Your task to perform on an android device: Open accessibility settings Image 0: 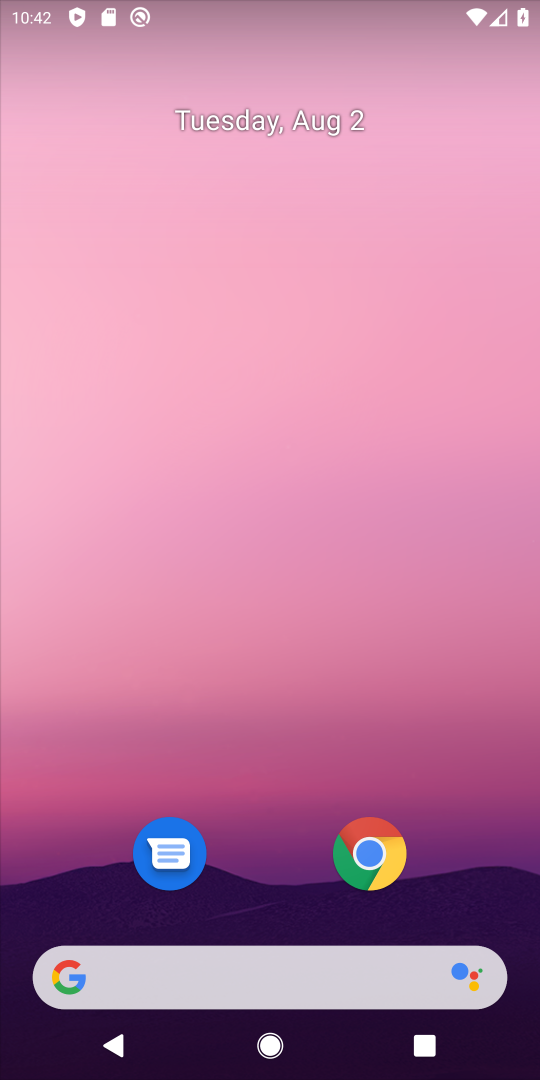
Step 0: drag from (348, 774) to (325, 208)
Your task to perform on an android device: Open accessibility settings Image 1: 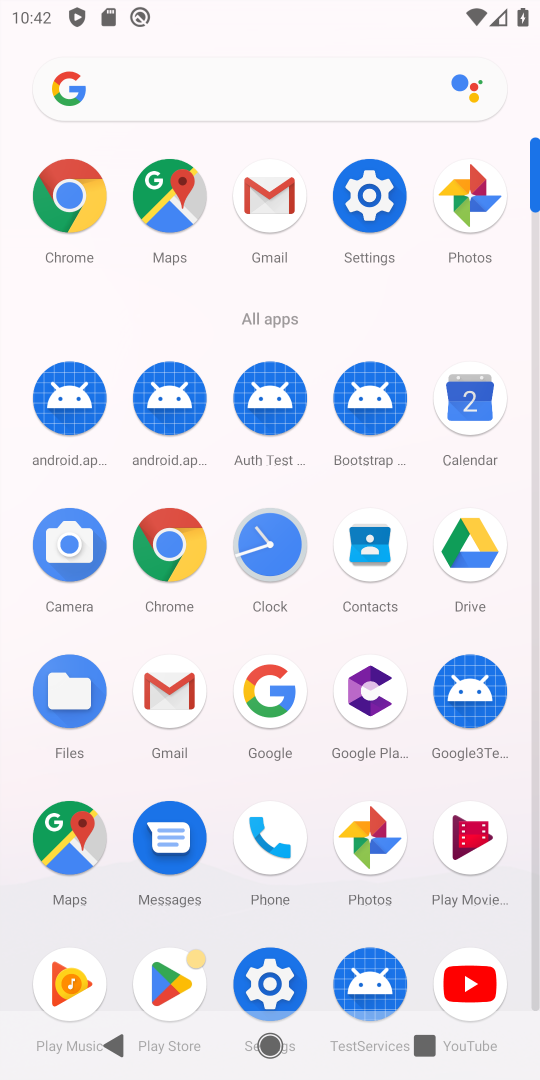
Step 1: click (282, 975)
Your task to perform on an android device: Open accessibility settings Image 2: 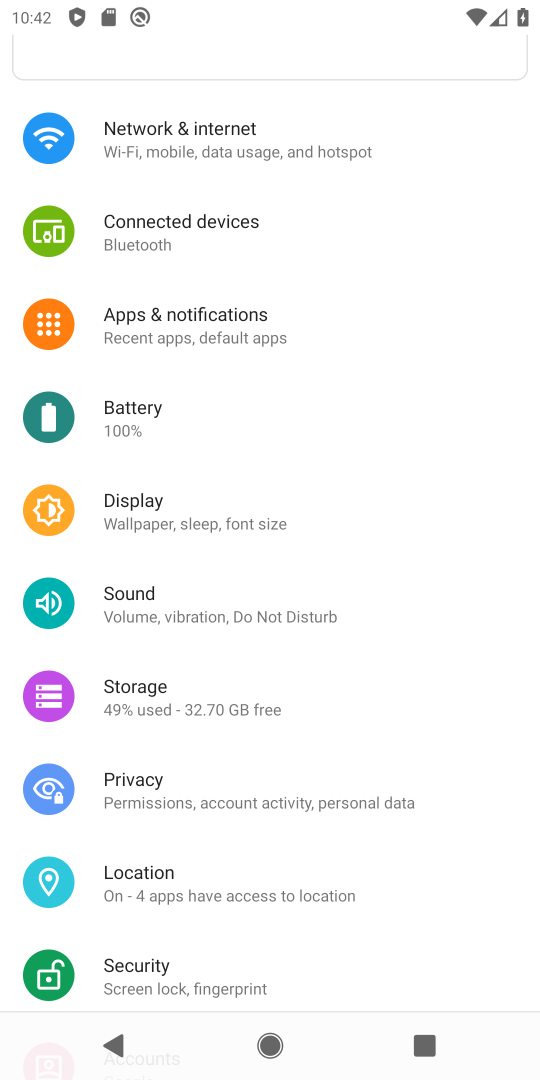
Step 2: drag from (450, 841) to (375, 478)
Your task to perform on an android device: Open accessibility settings Image 3: 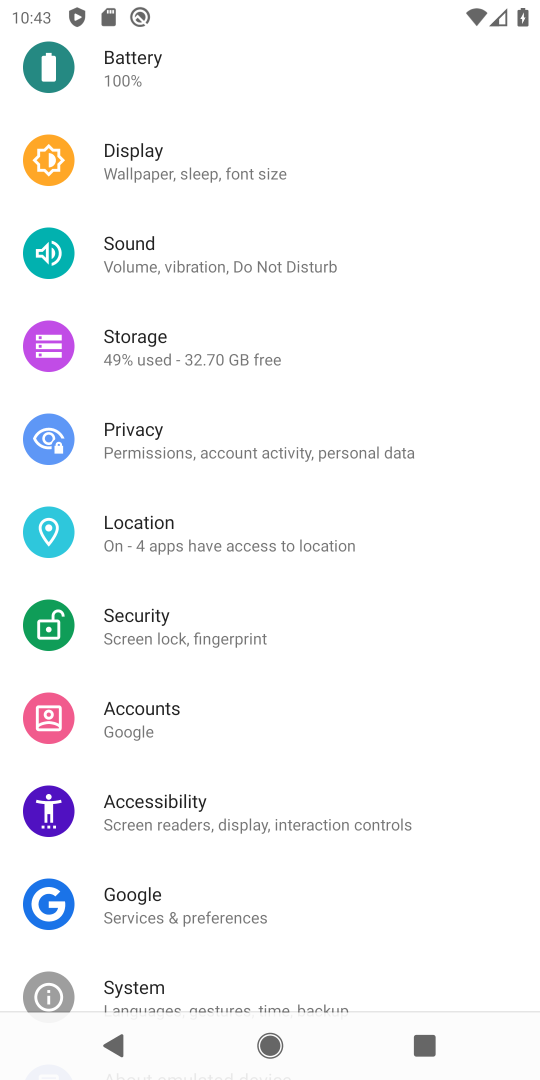
Step 3: click (168, 811)
Your task to perform on an android device: Open accessibility settings Image 4: 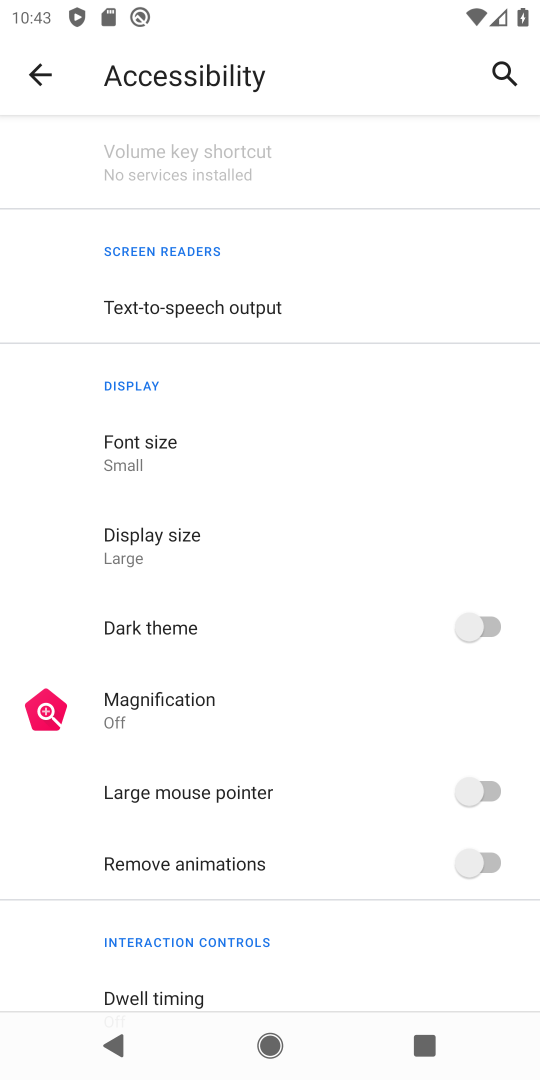
Step 4: task complete